Your task to perform on an android device: Go to sound settings Image 0: 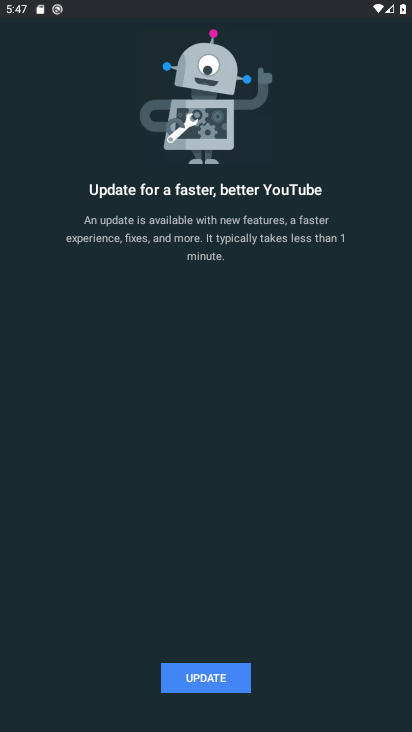
Step 0: press home button
Your task to perform on an android device: Go to sound settings Image 1: 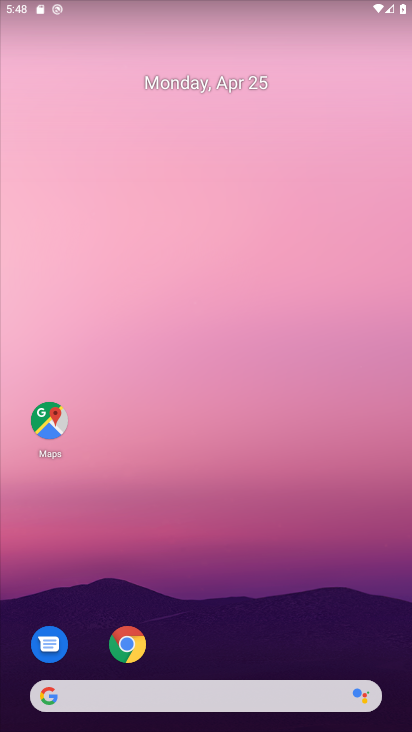
Step 1: drag from (252, 600) to (199, 12)
Your task to perform on an android device: Go to sound settings Image 2: 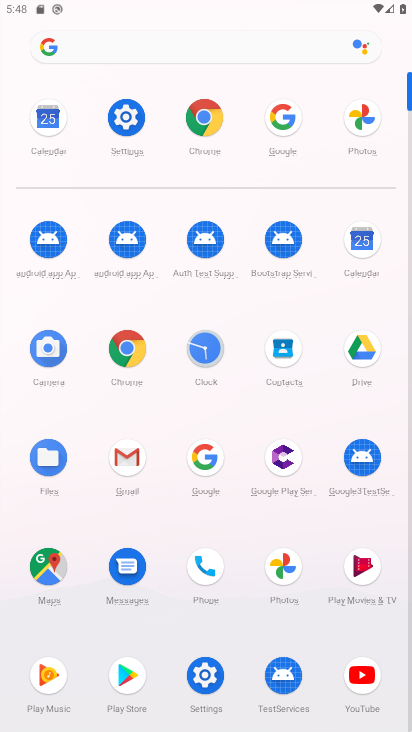
Step 2: click (125, 168)
Your task to perform on an android device: Go to sound settings Image 3: 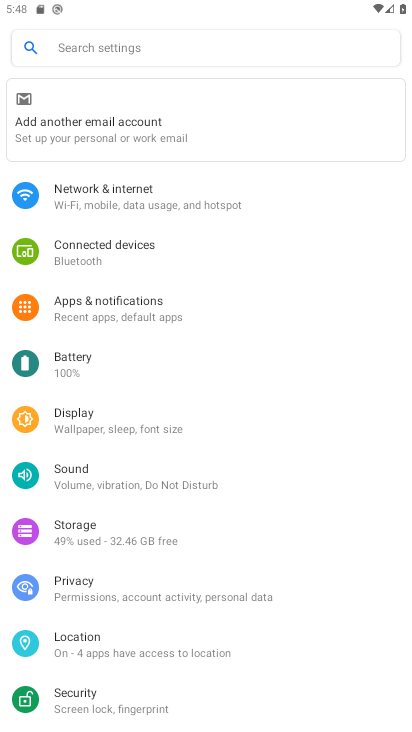
Step 3: click (115, 471)
Your task to perform on an android device: Go to sound settings Image 4: 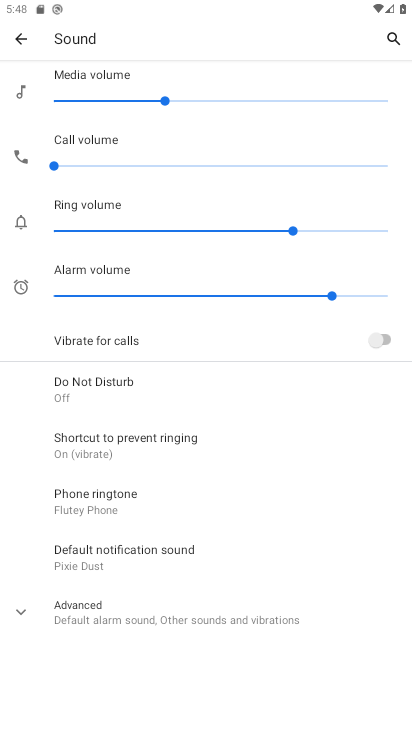
Step 4: task complete